Your task to perform on an android device: Go to notification settings Image 0: 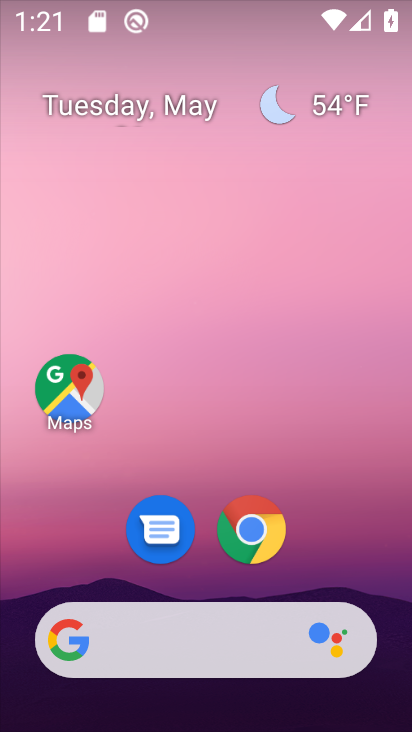
Step 0: drag from (299, 547) to (291, 211)
Your task to perform on an android device: Go to notification settings Image 1: 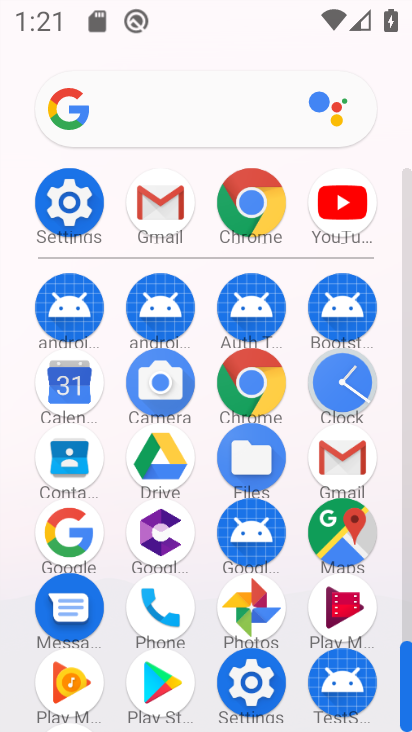
Step 1: click (64, 202)
Your task to perform on an android device: Go to notification settings Image 2: 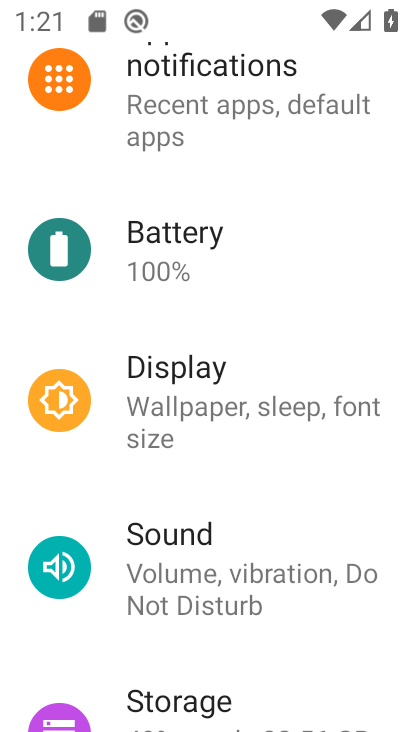
Step 2: drag from (205, 121) to (217, 337)
Your task to perform on an android device: Go to notification settings Image 3: 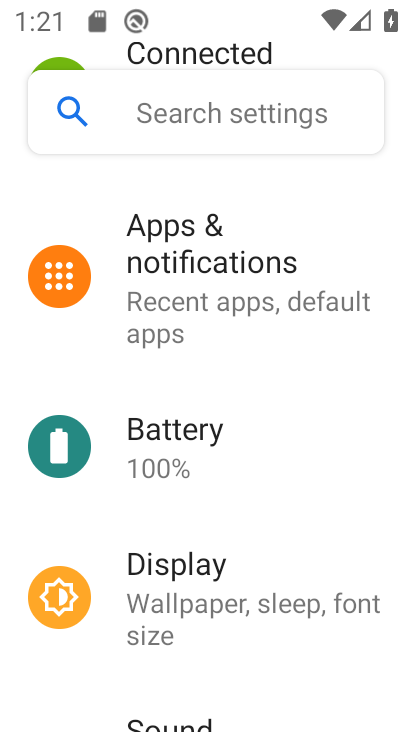
Step 3: click (189, 267)
Your task to perform on an android device: Go to notification settings Image 4: 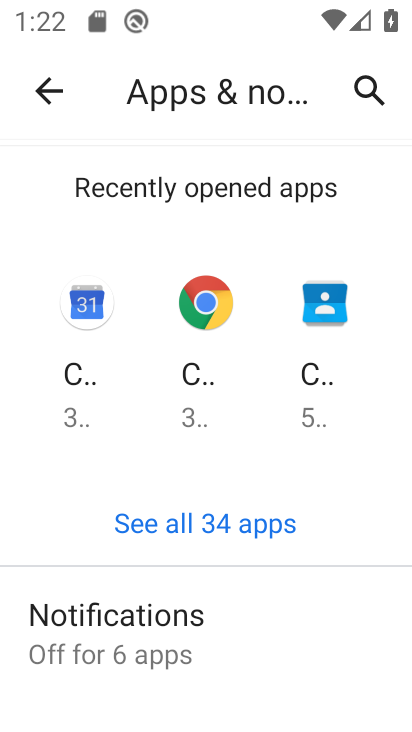
Step 4: drag from (238, 571) to (254, 302)
Your task to perform on an android device: Go to notification settings Image 5: 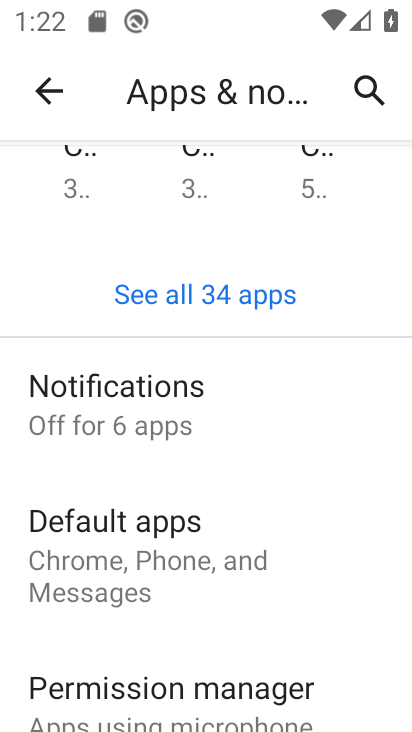
Step 5: click (153, 412)
Your task to perform on an android device: Go to notification settings Image 6: 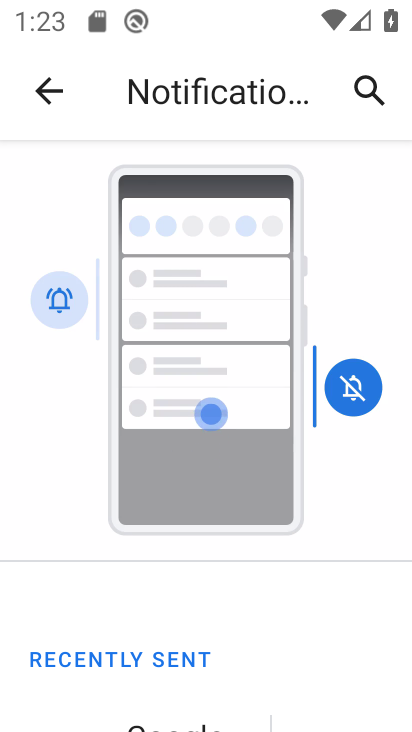
Step 6: task complete